Your task to perform on an android device: turn notification dots off Image 0: 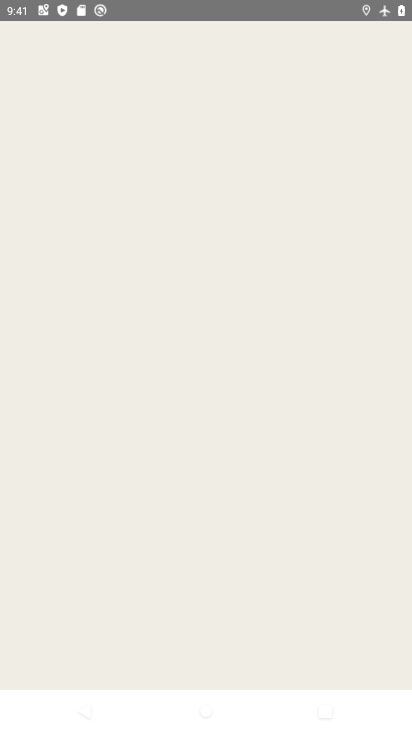
Step 0: press home button
Your task to perform on an android device: turn notification dots off Image 1: 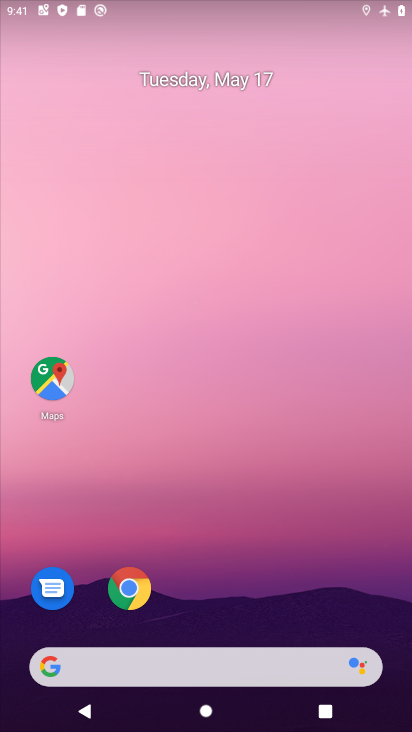
Step 1: drag from (198, 631) to (123, 37)
Your task to perform on an android device: turn notification dots off Image 2: 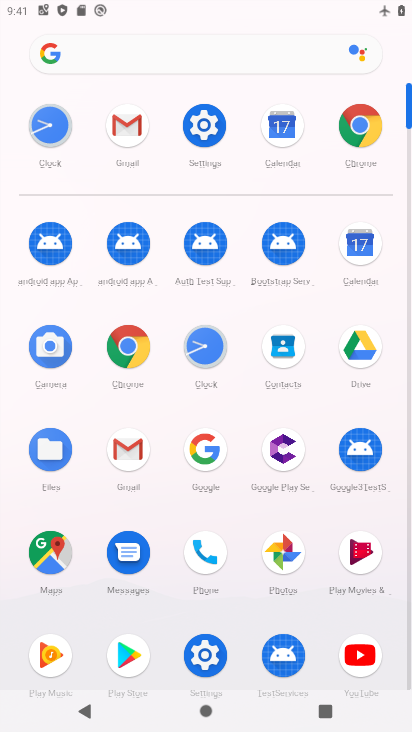
Step 2: click (185, 137)
Your task to perform on an android device: turn notification dots off Image 3: 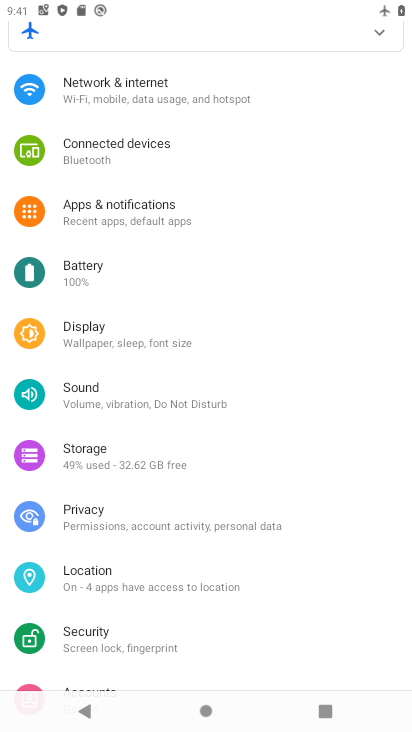
Step 3: click (153, 222)
Your task to perform on an android device: turn notification dots off Image 4: 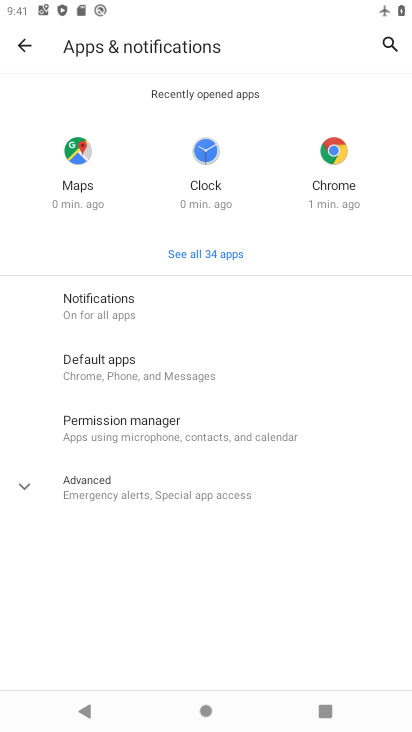
Step 4: click (125, 306)
Your task to perform on an android device: turn notification dots off Image 5: 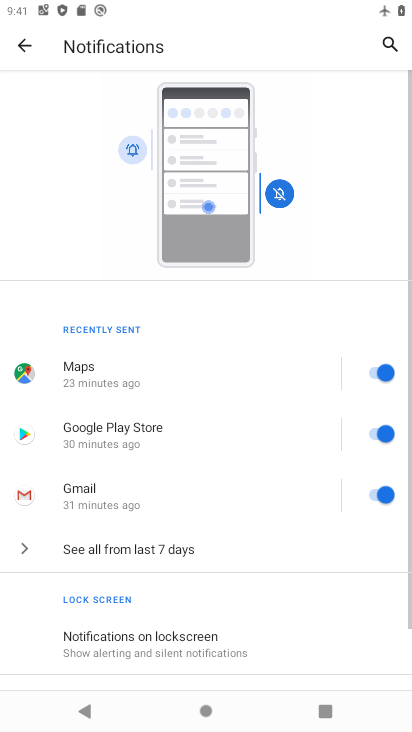
Step 5: drag from (178, 615) to (126, 200)
Your task to perform on an android device: turn notification dots off Image 6: 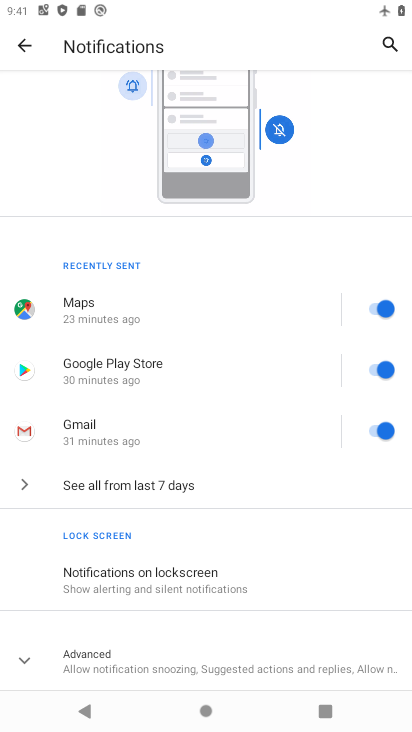
Step 6: click (118, 638)
Your task to perform on an android device: turn notification dots off Image 7: 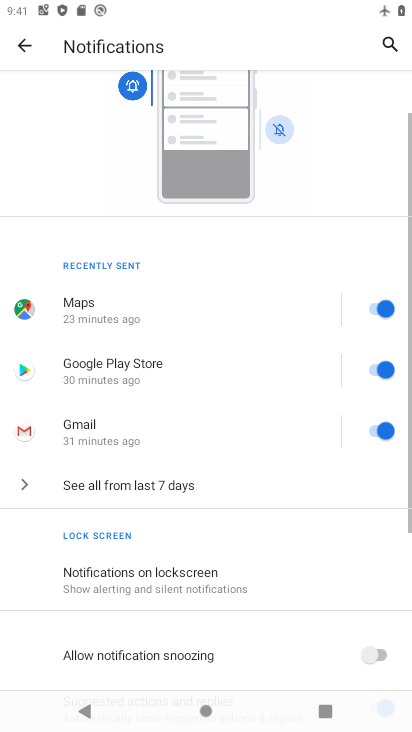
Step 7: task complete